Your task to perform on an android device: turn on data saver in the chrome app Image 0: 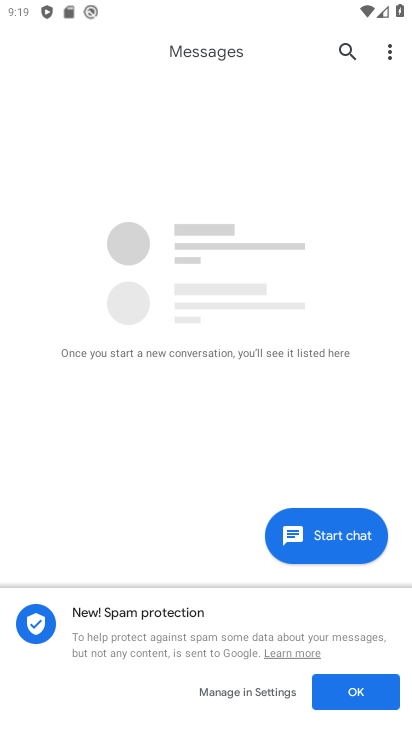
Step 0: press home button
Your task to perform on an android device: turn on data saver in the chrome app Image 1: 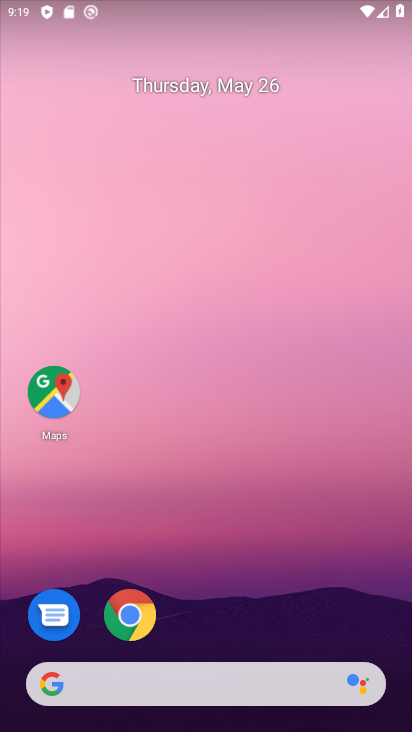
Step 1: click (126, 620)
Your task to perform on an android device: turn on data saver in the chrome app Image 2: 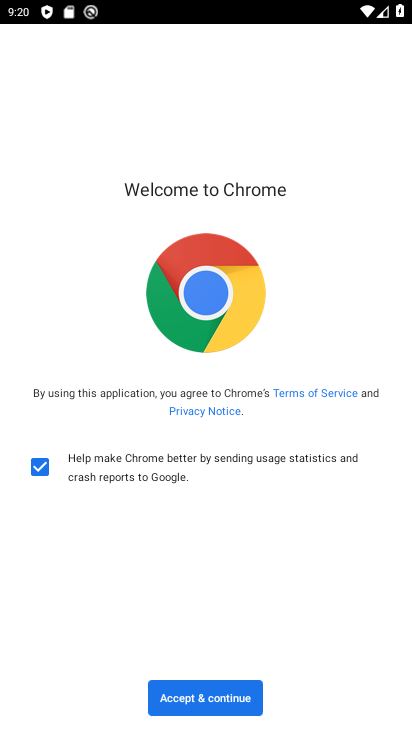
Step 2: click (219, 711)
Your task to perform on an android device: turn on data saver in the chrome app Image 3: 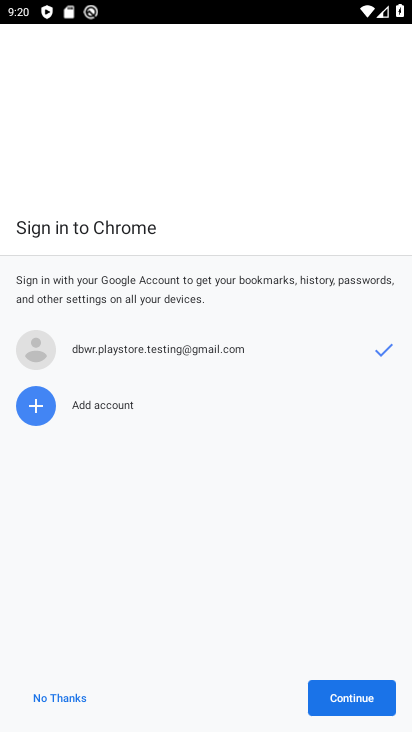
Step 3: click (357, 708)
Your task to perform on an android device: turn on data saver in the chrome app Image 4: 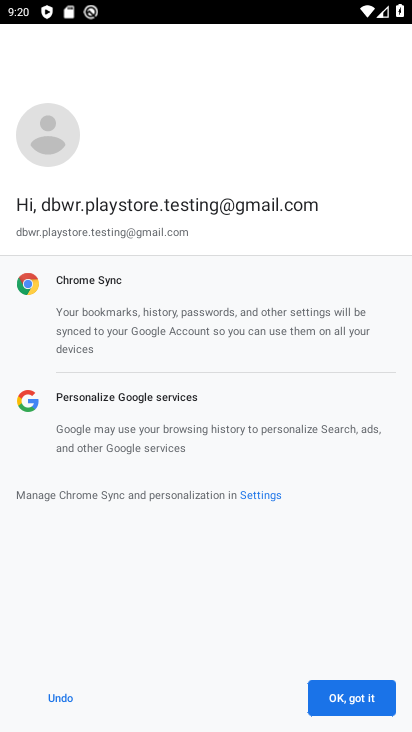
Step 4: click (356, 708)
Your task to perform on an android device: turn on data saver in the chrome app Image 5: 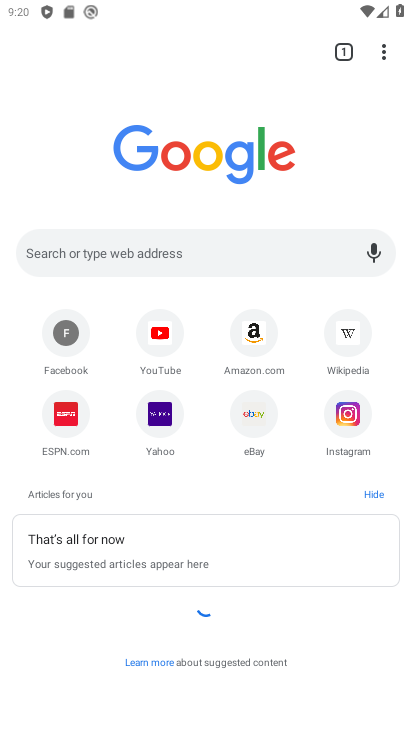
Step 5: click (380, 53)
Your task to perform on an android device: turn on data saver in the chrome app Image 6: 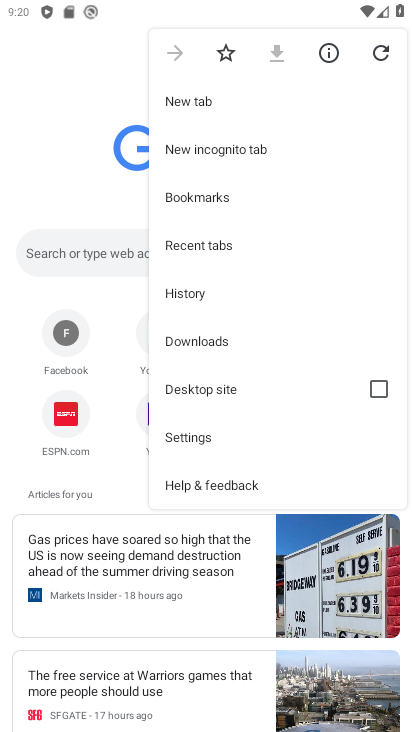
Step 6: click (205, 432)
Your task to perform on an android device: turn on data saver in the chrome app Image 7: 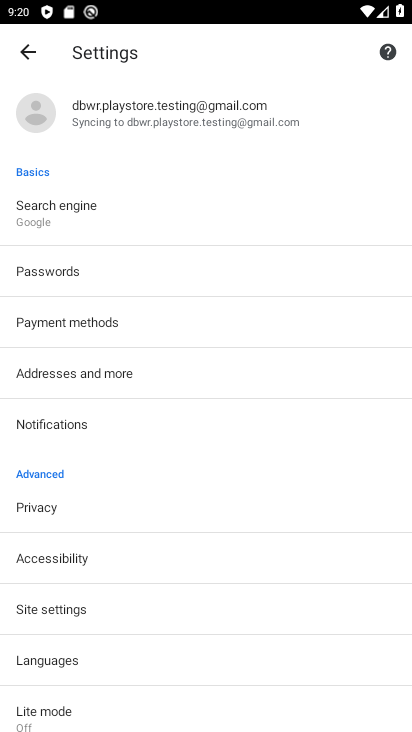
Step 7: click (76, 714)
Your task to perform on an android device: turn on data saver in the chrome app Image 8: 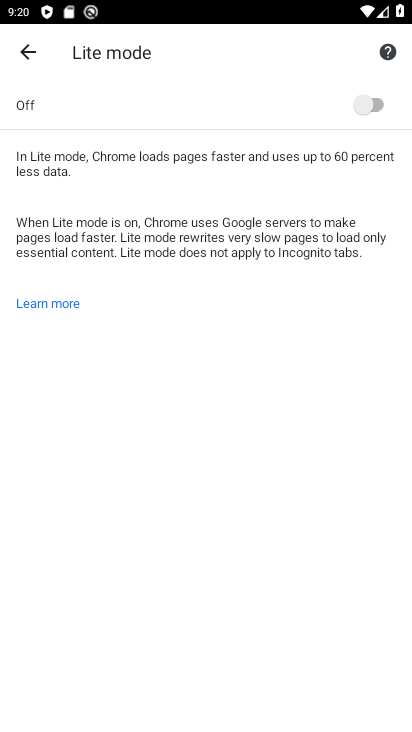
Step 8: click (367, 103)
Your task to perform on an android device: turn on data saver in the chrome app Image 9: 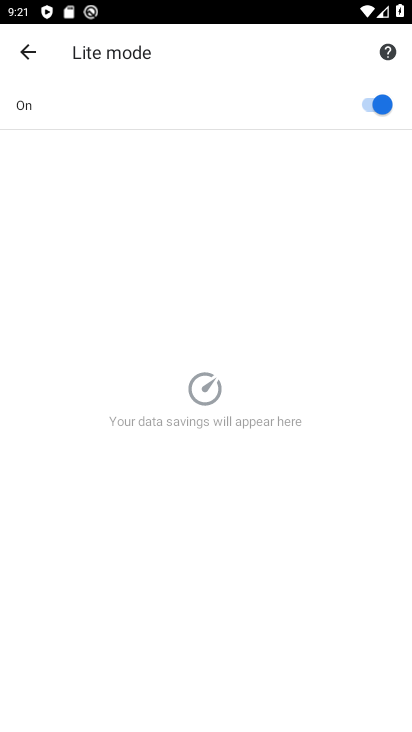
Step 9: task complete